Your task to perform on an android device: Open my contact list Image 0: 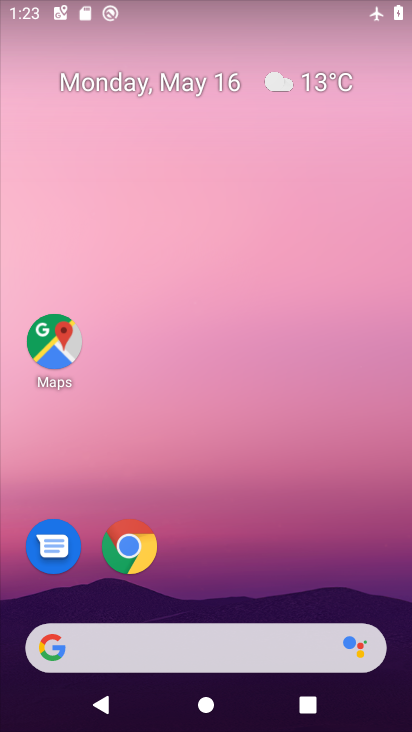
Step 0: drag from (219, 726) to (212, 253)
Your task to perform on an android device: Open my contact list Image 1: 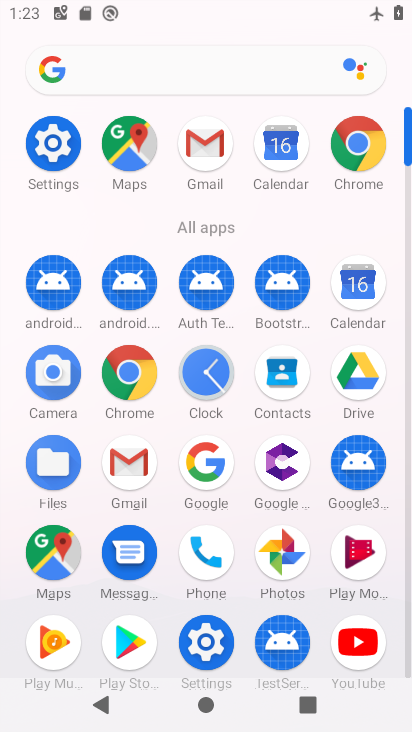
Step 1: click (280, 374)
Your task to perform on an android device: Open my contact list Image 2: 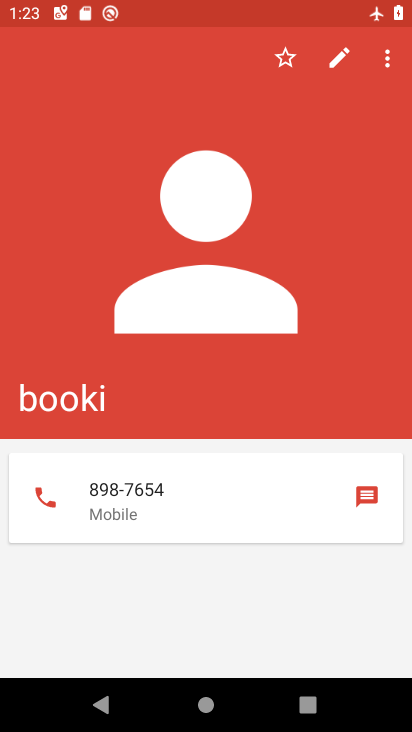
Step 2: task complete